Your task to perform on an android device: Is it going to rain tomorrow? Image 0: 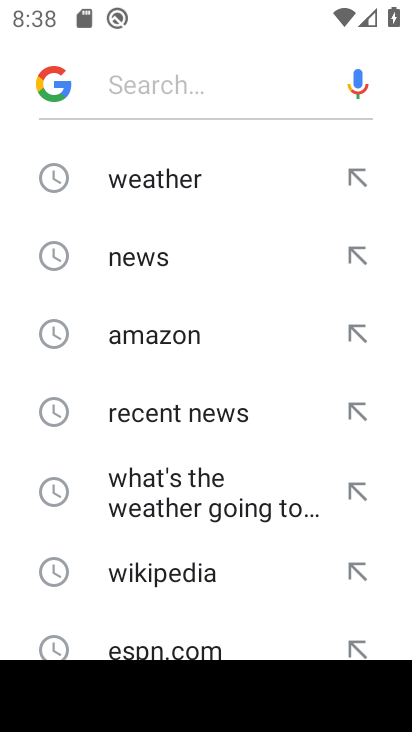
Step 0: press home button
Your task to perform on an android device: Is it going to rain tomorrow? Image 1: 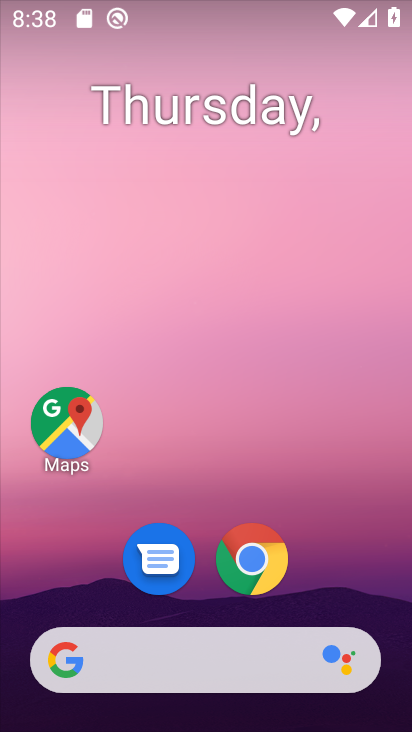
Step 1: drag from (8, 505) to (407, 425)
Your task to perform on an android device: Is it going to rain tomorrow? Image 2: 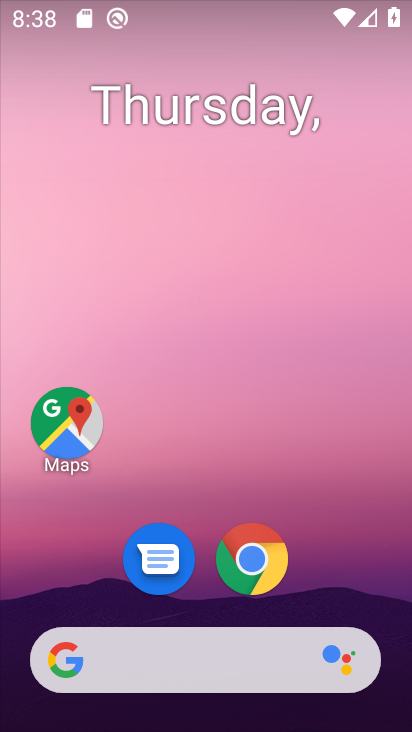
Step 2: drag from (3, 511) to (411, 428)
Your task to perform on an android device: Is it going to rain tomorrow? Image 3: 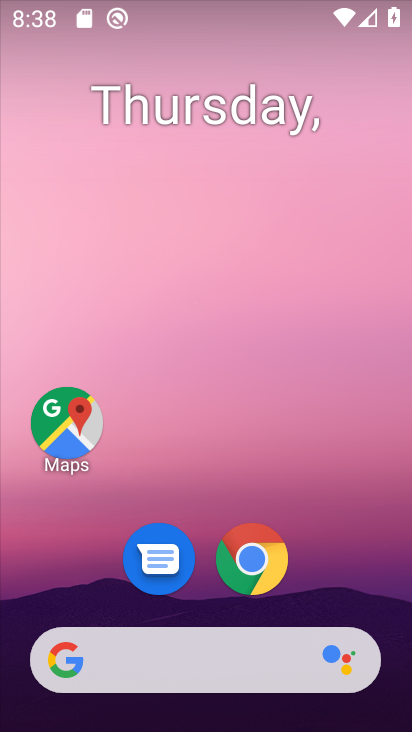
Step 3: drag from (4, 249) to (410, 239)
Your task to perform on an android device: Is it going to rain tomorrow? Image 4: 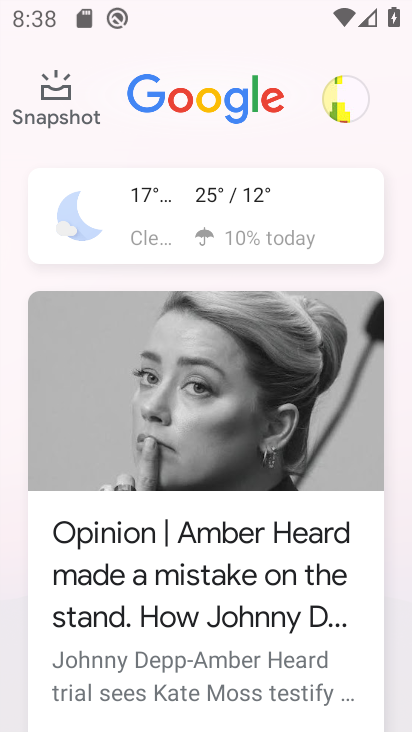
Step 4: click (295, 227)
Your task to perform on an android device: Is it going to rain tomorrow? Image 5: 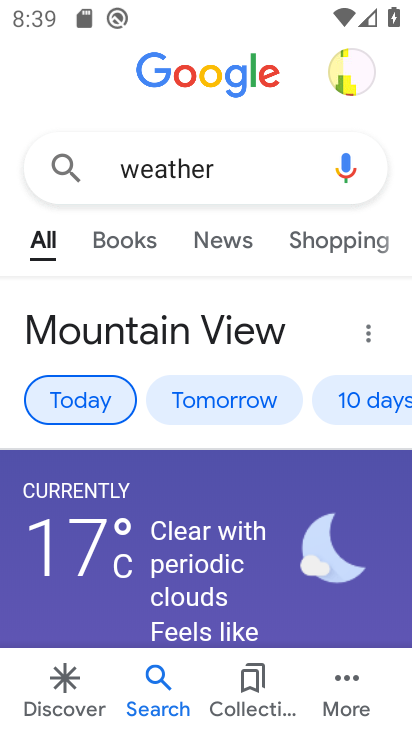
Step 5: drag from (192, 563) to (328, 191)
Your task to perform on an android device: Is it going to rain tomorrow? Image 6: 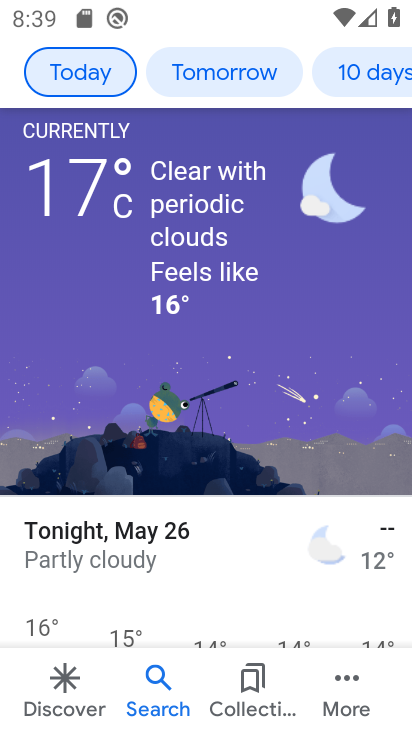
Step 6: click (145, 382)
Your task to perform on an android device: Is it going to rain tomorrow? Image 7: 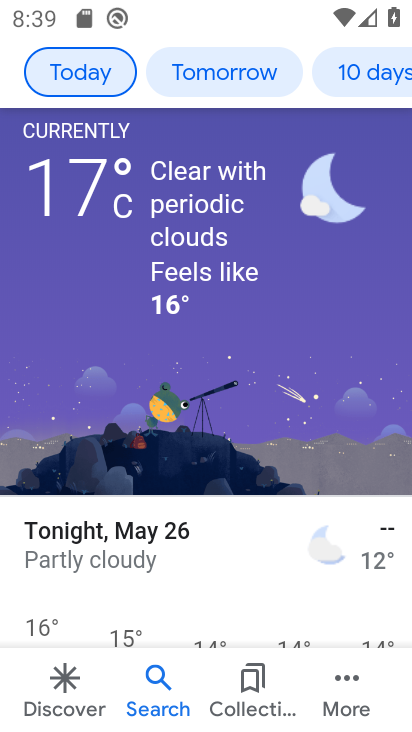
Step 7: click (147, 382)
Your task to perform on an android device: Is it going to rain tomorrow? Image 8: 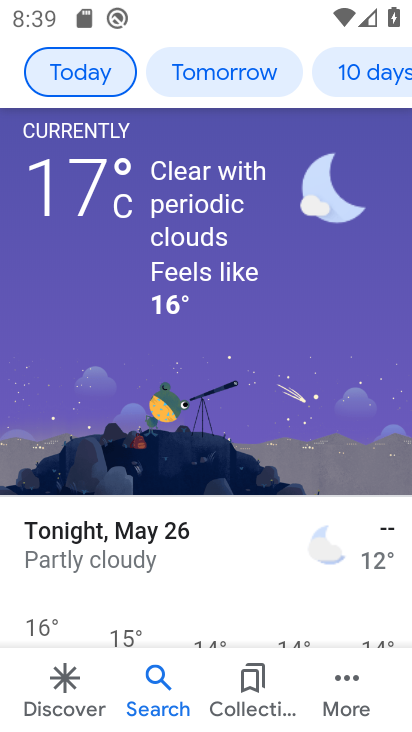
Step 8: click (194, 453)
Your task to perform on an android device: Is it going to rain tomorrow? Image 9: 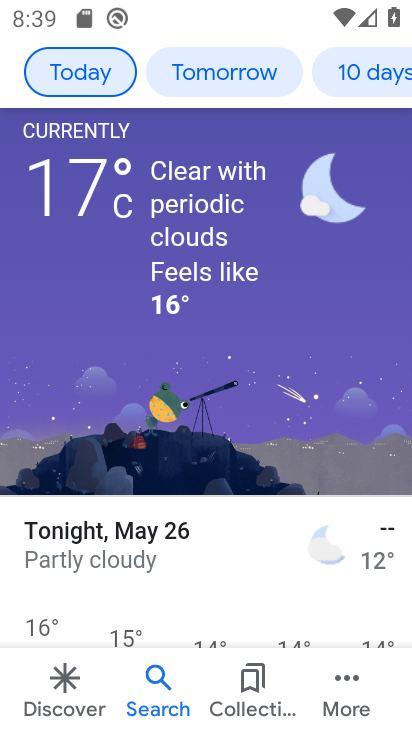
Step 9: click (272, 81)
Your task to perform on an android device: Is it going to rain tomorrow? Image 10: 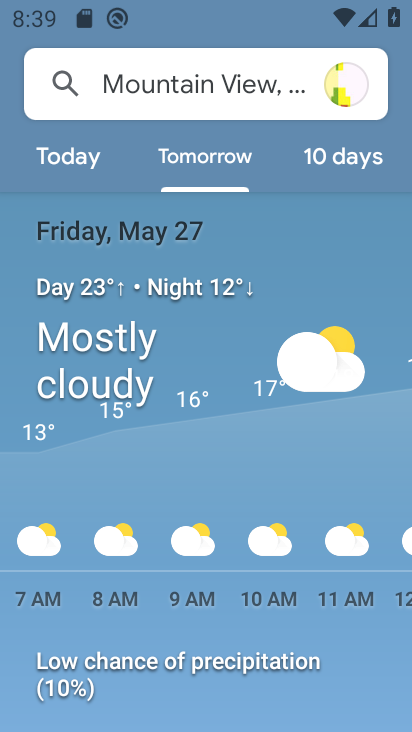
Step 10: task complete